Your task to perform on an android device: What's on my calendar today? Image 0: 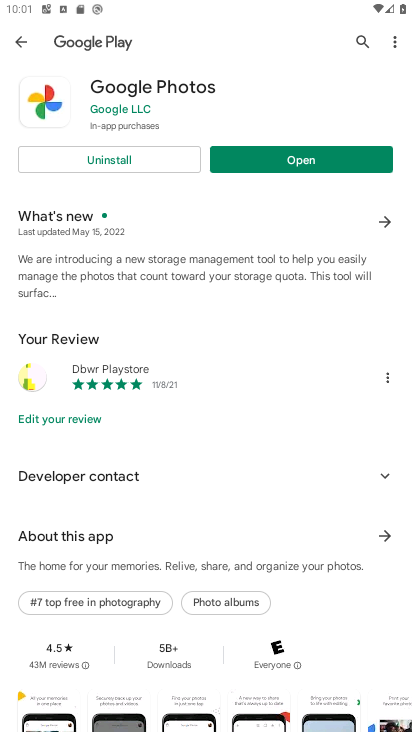
Step 0: press home button
Your task to perform on an android device: What's on my calendar today? Image 1: 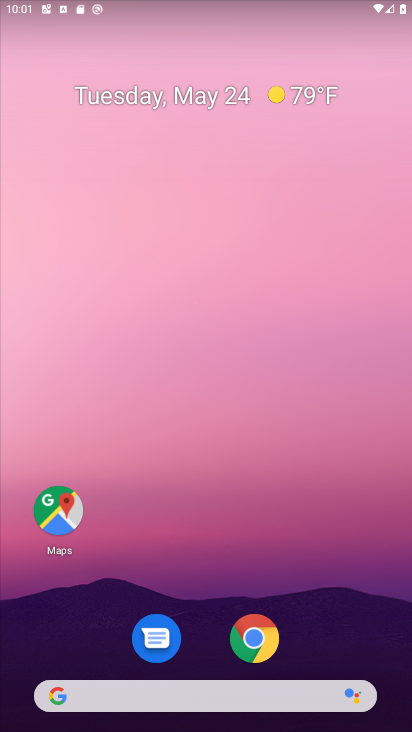
Step 1: drag from (253, 724) to (372, 50)
Your task to perform on an android device: What's on my calendar today? Image 2: 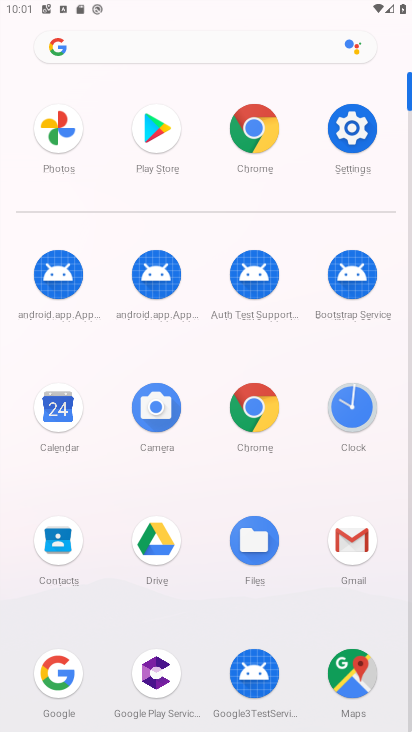
Step 2: click (51, 412)
Your task to perform on an android device: What's on my calendar today? Image 3: 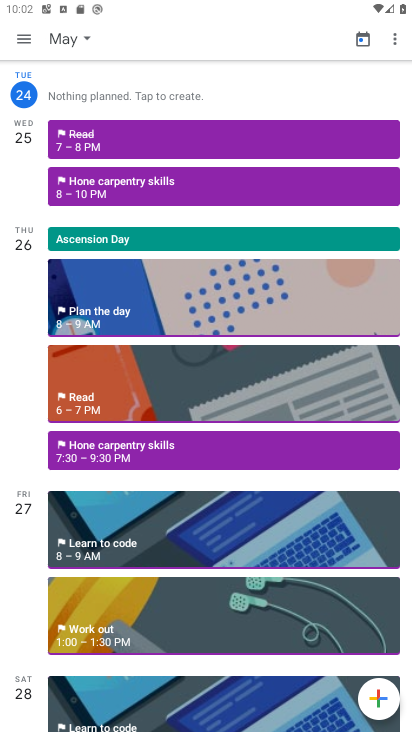
Step 3: press home button
Your task to perform on an android device: What's on my calendar today? Image 4: 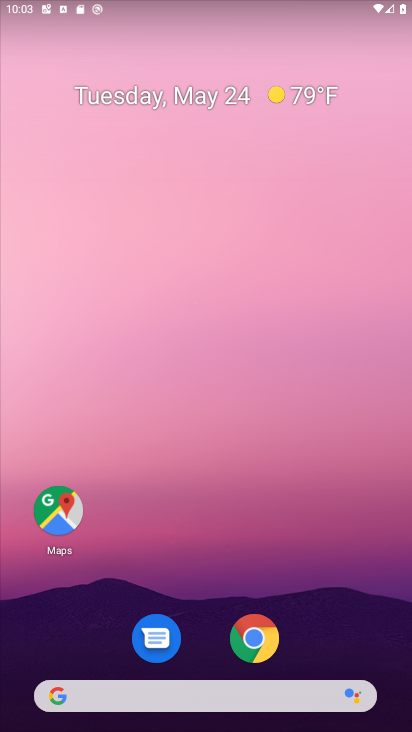
Step 4: drag from (229, 698) to (196, 108)
Your task to perform on an android device: What's on my calendar today? Image 5: 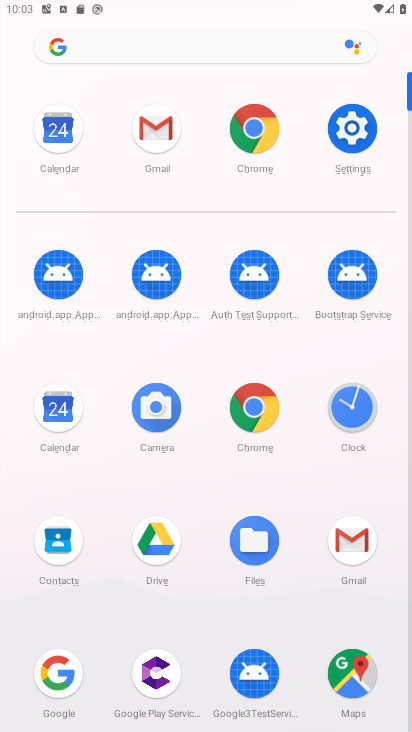
Step 5: click (62, 419)
Your task to perform on an android device: What's on my calendar today? Image 6: 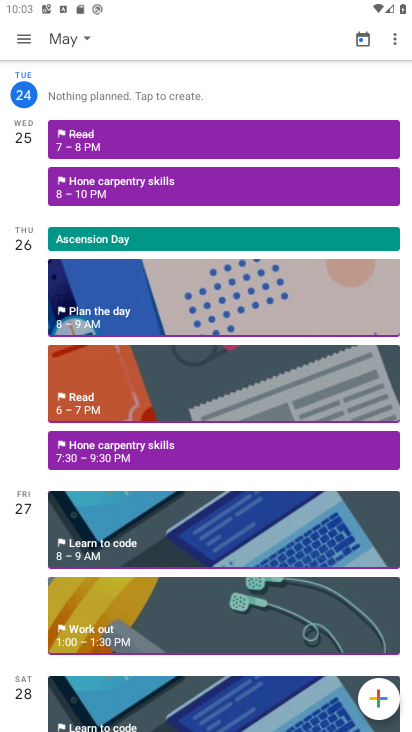
Step 6: task complete